Your task to perform on an android device: When is my next meeting? Image 0: 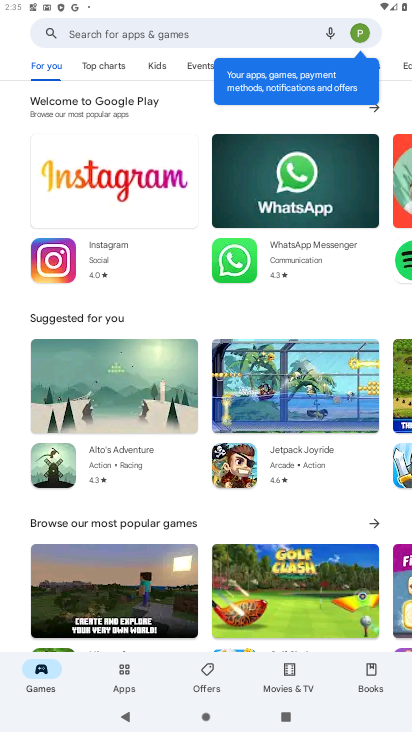
Step 0: task complete